Your task to perform on an android device: Open Android settings Image 0: 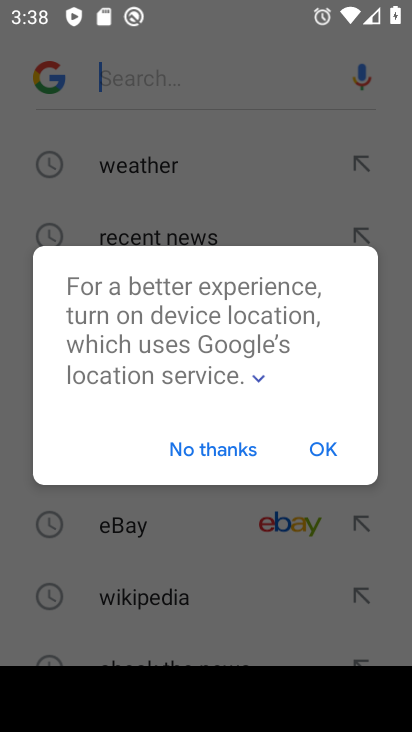
Step 0: press back button
Your task to perform on an android device: Open Android settings Image 1: 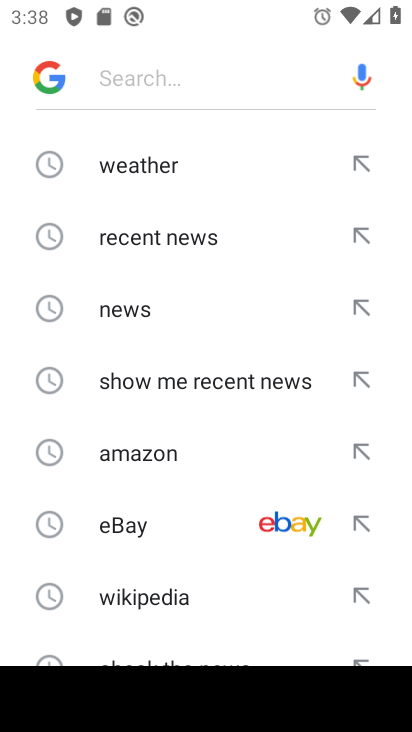
Step 1: press back button
Your task to perform on an android device: Open Android settings Image 2: 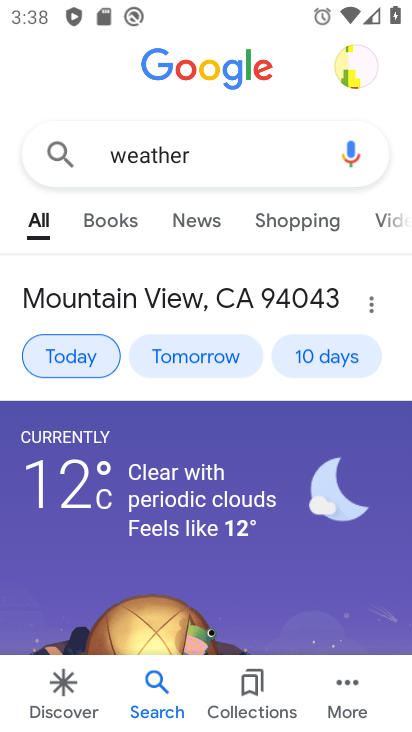
Step 2: press back button
Your task to perform on an android device: Open Android settings Image 3: 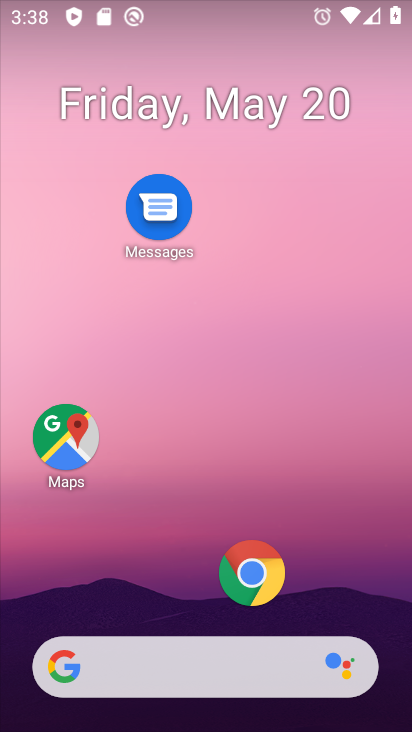
Step 3: press home button
Your task to perform on an android device: Open Android settings Image 4: 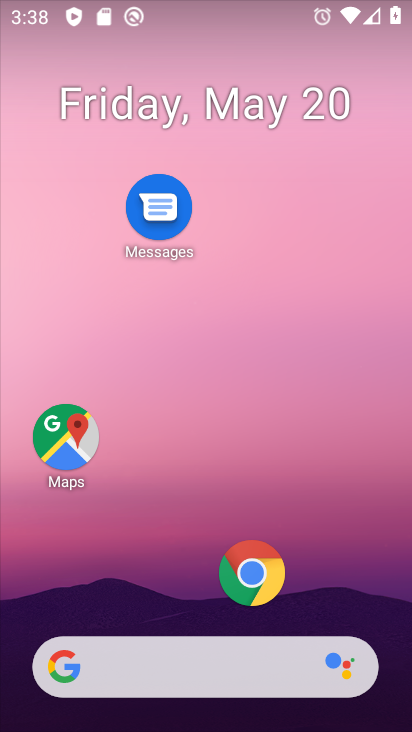
Step 4: drag from (251, 636) to (165, 2)
Your task to perform on an android device: Open Android settings Image 5: 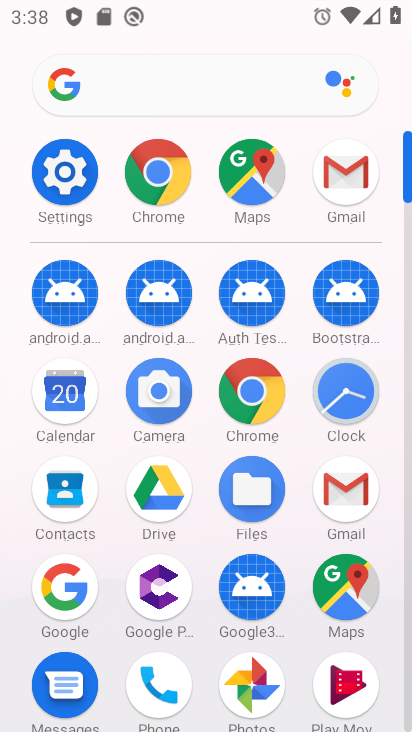
Step 5: click (71, 183)
Your task to perform on an android device: Open Android settings Image 6: 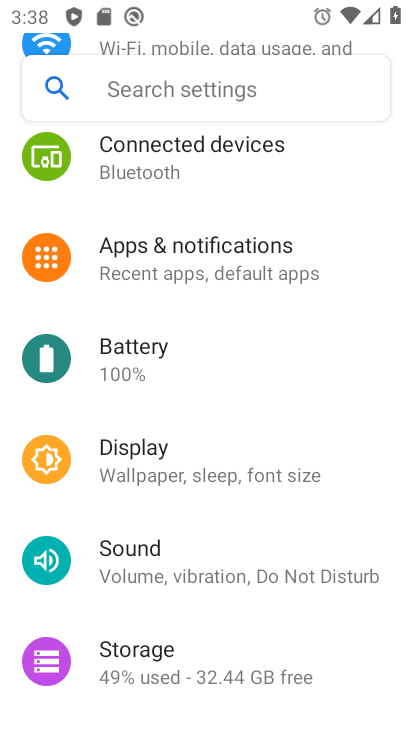
Step 6: task complete